Your task to perform on an android device: Go to Google maps Image 0: 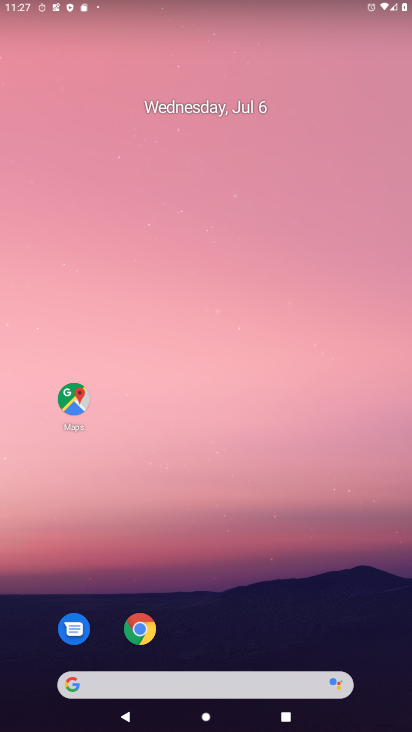
Step 0: drag from (235, 639) to (220, 57)
Your task to perform on an android device: Go to Google maps Image 1: 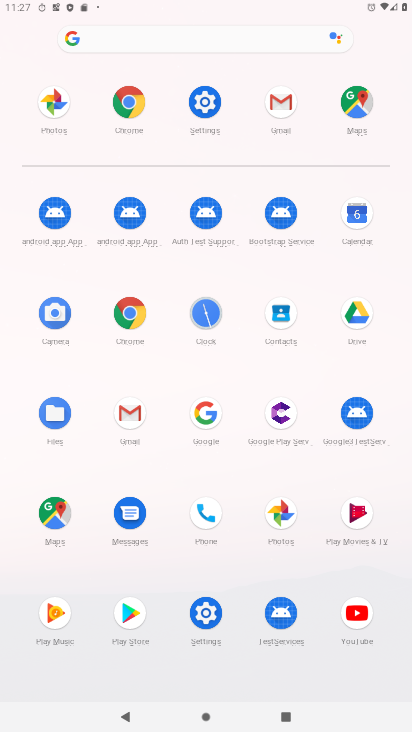
Step 1: click (360, 109)
Your task to perform on an android device: Go to Google maps Image 2: 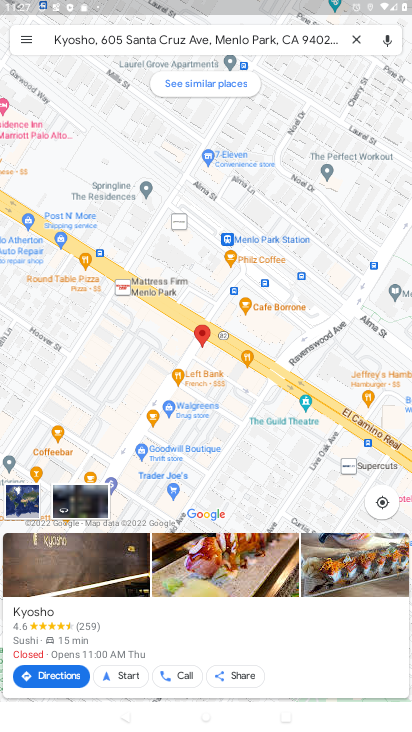
Step 2: click (354, 37)
Your task to perform on an android device: Go to Google maps Image 3: 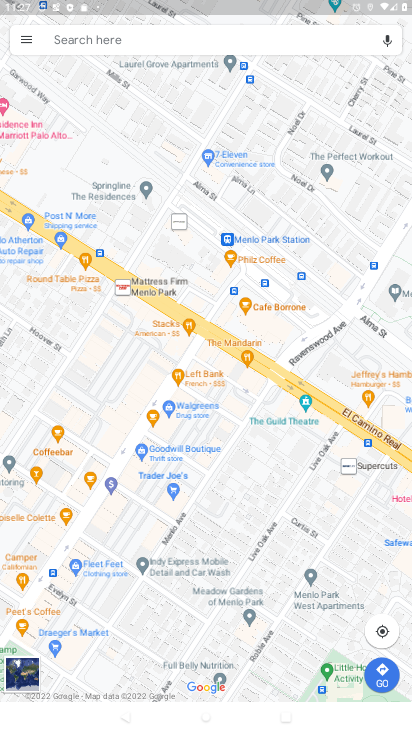
Step 3: task complete